Your task to perform on an android device: Check the weather Image 0: 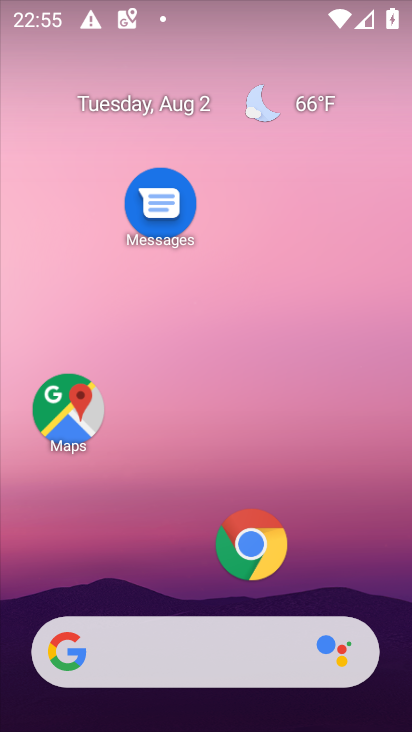
Step 0: drag from (185, 595) to (215, 212)
Your task to perform on an android device: Check the weather Image 1: 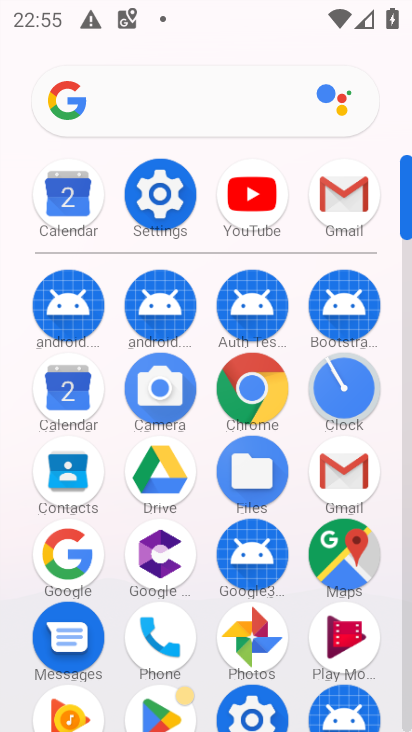
Step 1: click (79, 541)
Your task to perform on an android device: Check the weather Image 2: 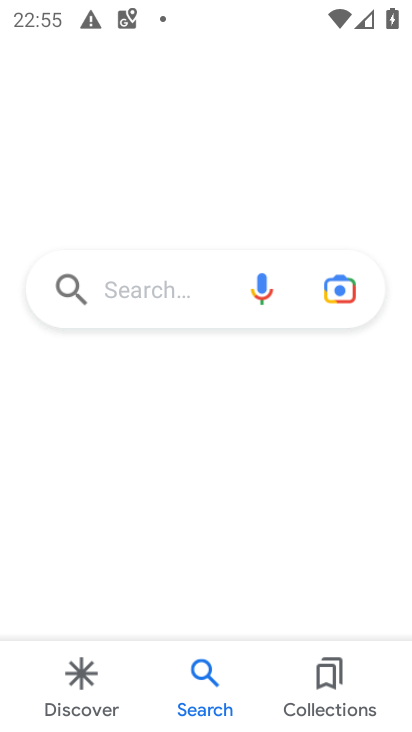
Step 2: click (143, 274)
Your task to perform on an android device: Check the weather Image 3: 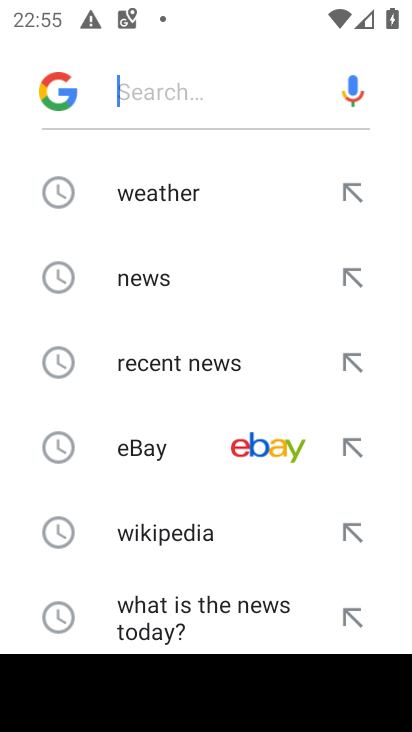
Step 3: click (141, 208)
Your task to perform on an android device: Check the weather Image 4: 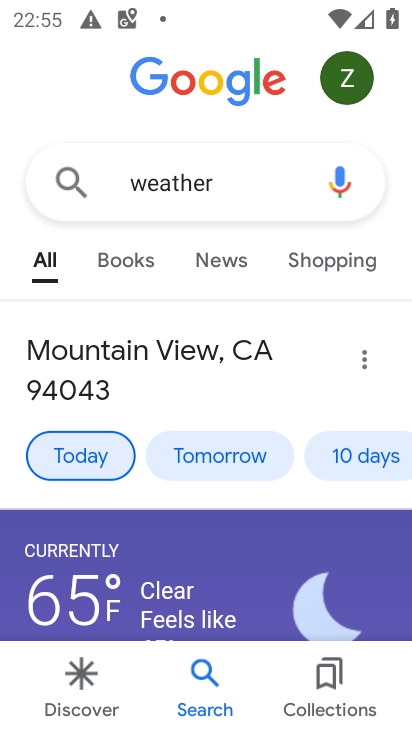
Step 4: task complete